Your task to perform on an android device: Go to internet settings Image 0: 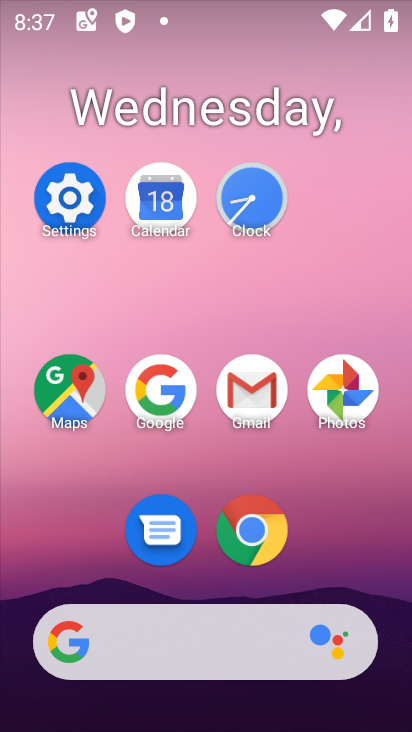
Step 0: click (102, 194)
Your task to perform on an android device: Go to internet settings Image 1: 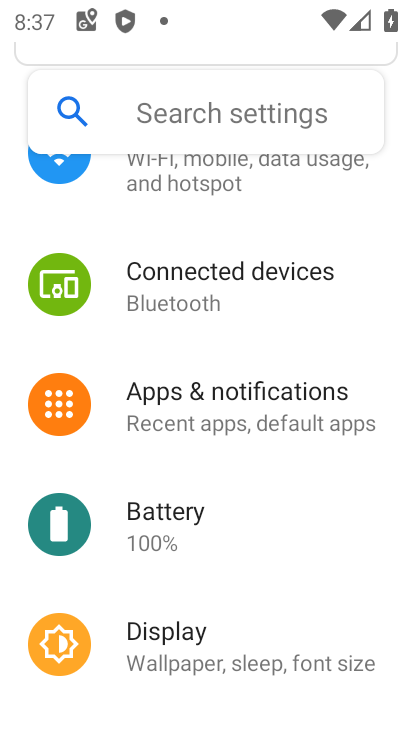
Step 1: click (288, 180)
Your task to perform on an android device: Go to internet settings Image 2: 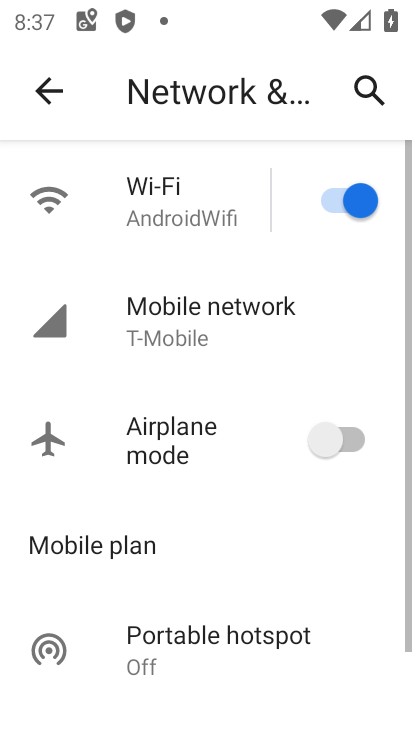
Step 2: click (207, 331)
Your task to perform on an android device: Go to internet settings Image 3: 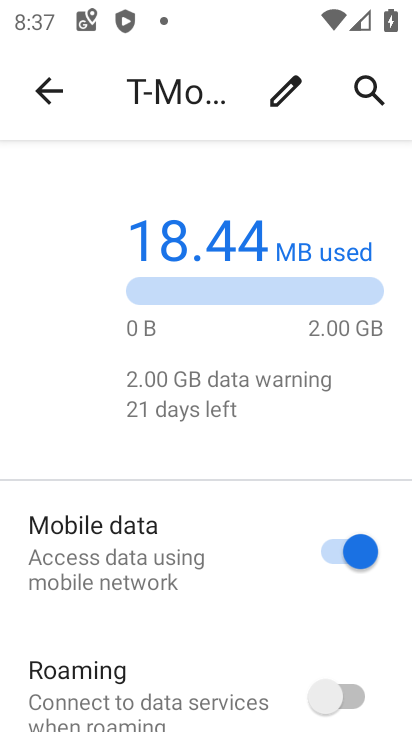
Step 3: task complete